Your task to perform on an android device: delete the emails in spam in the gmail app Image 0: 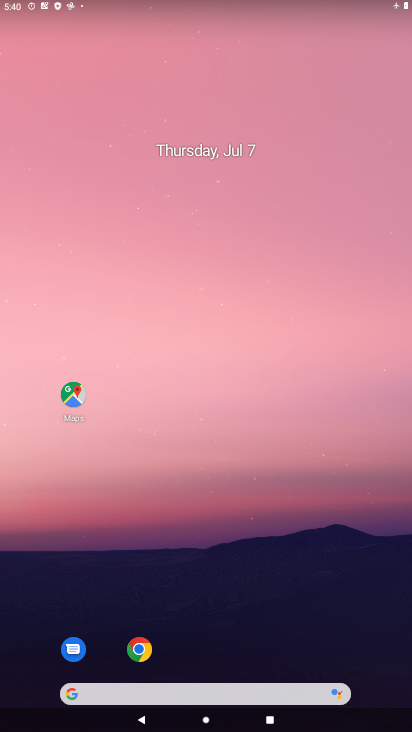
Step 0: drag from (358, 701) to (178, 4)
Your task to perform on an android device: delete the emails in spam in the gmail app Image 1: 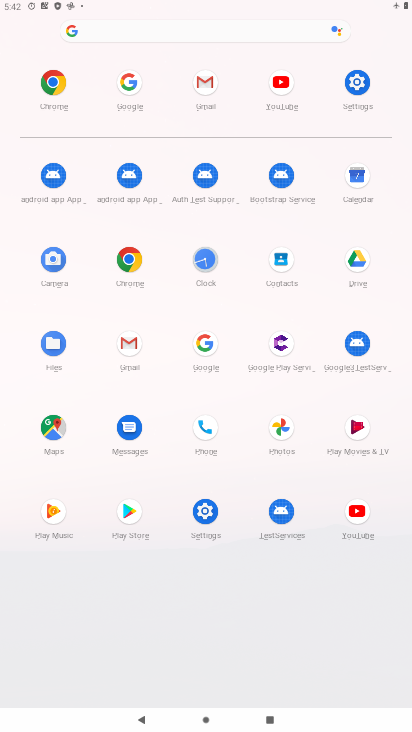
Step 1: click (209, 97)
Your task to perform on an android device: delete the emails in spam in the gmail app Image 2: 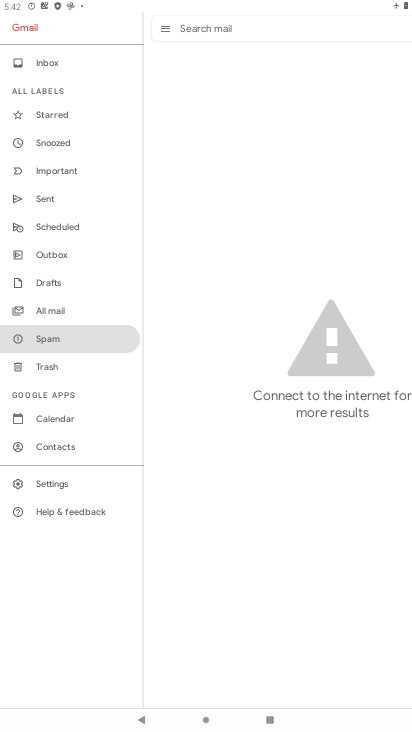
Step 2: task complete